Your task to perform on an android device: change the upload size in google photos Image 0: 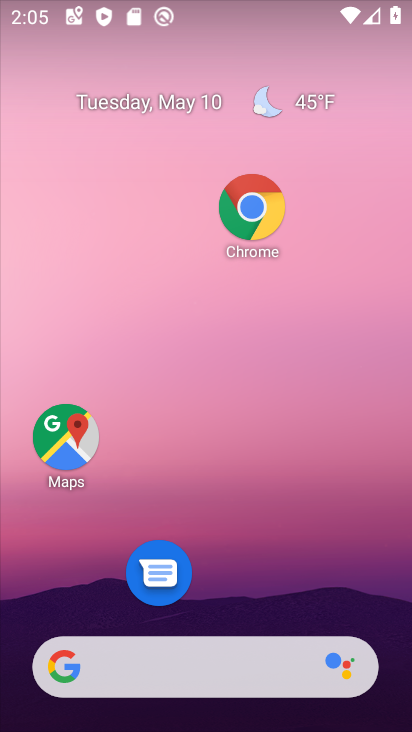
Step 0: drag from (260, 478) to (271, 13)
Your task to perform on an android device: change the upload size in google photos Image 1: 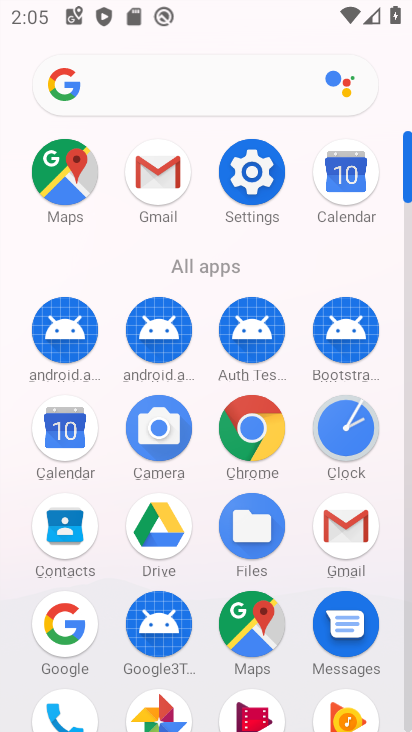
Step 1: drag from (207, 532) to (233, 217)
Your task to perform on an android device: change the upload size in google photos Image 2: 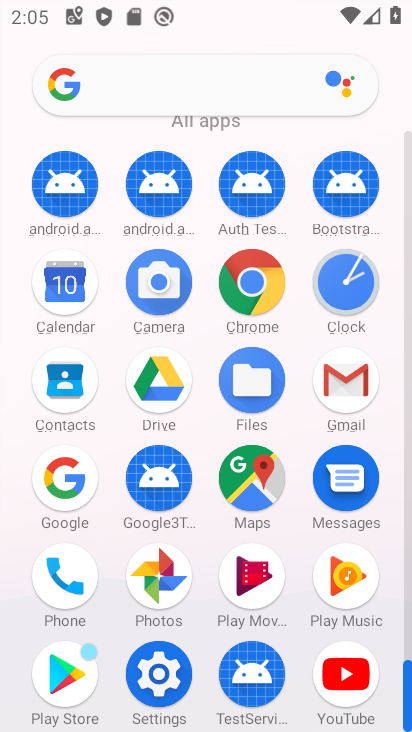
Step 2: click (158, 578)
Your task to perform on an android device: change the upload size in google photos Image 3: 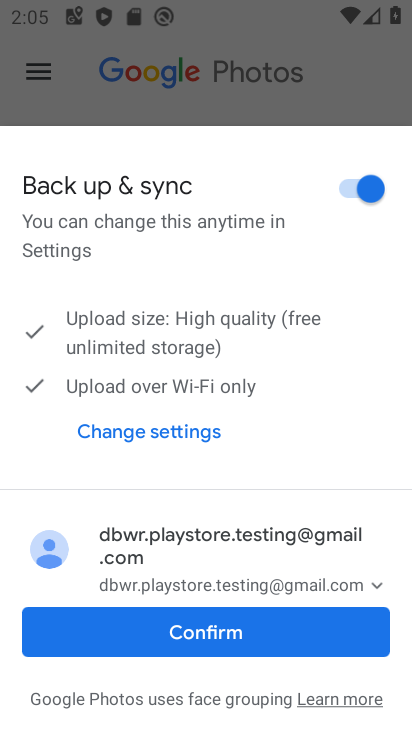
Step 3: click (277, 624)
Your task to perform on an android device: change the upload size in google photos Image 4: 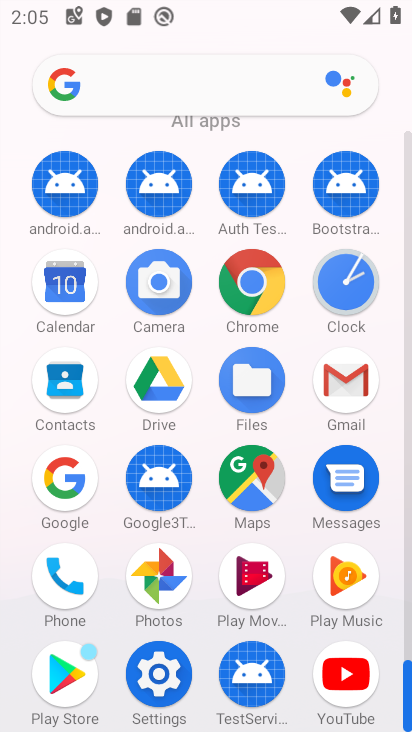
Step 4: click (270, 634)
Your task to perform on an android device: change the upload size in google photos Image 5: 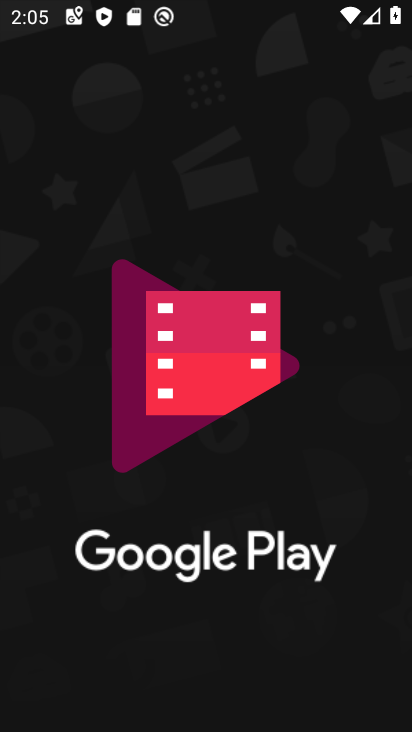
Step 5: press home button
Your task to perform on an android device: change the upload size in google photos Image 6: 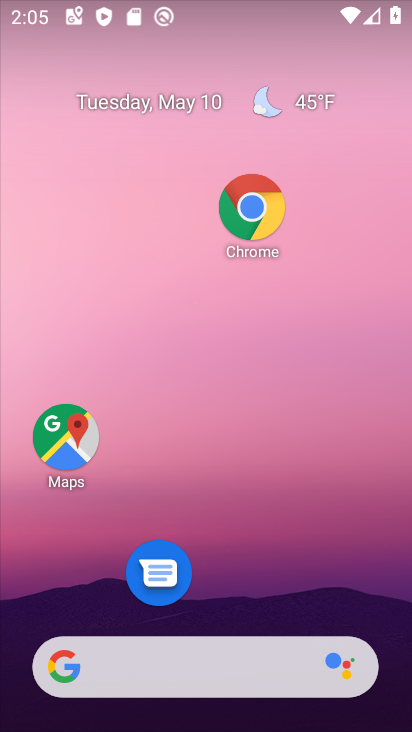
Step 6: drag from (268, 572) to (371, 40)
Your task to perform on an android device: change the upload size in google photos Image 7: 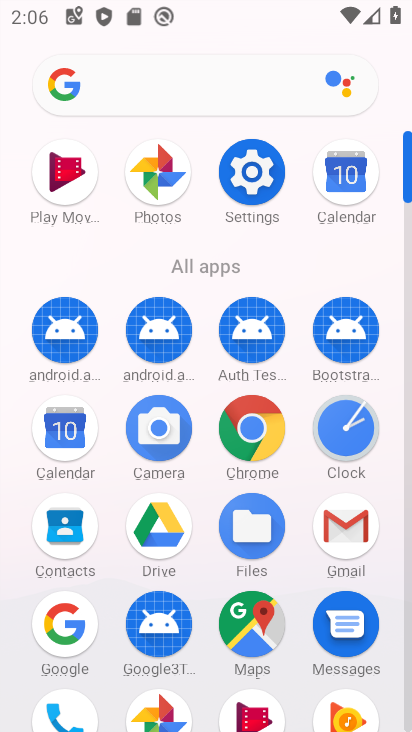
Step 7: drag from (216, 647) to (254, 242)
Your task to perform on an android device: change the upload size in google photos Image 8: 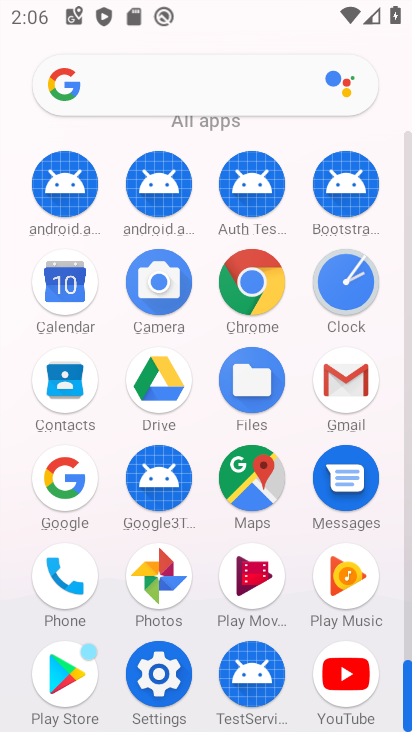
Step 8: click (147, 572)
Your task to perform on an android device: change the upload size in google photos Image 9: 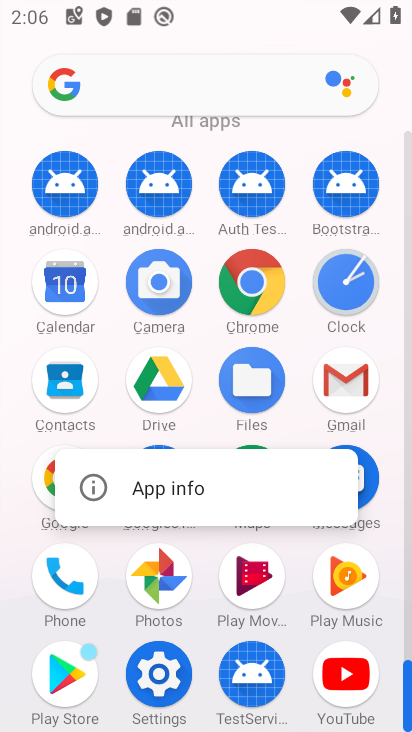
Step 9: click (181, 581)
Your task to perform on an android device: change the upload size in google photos Image 10: 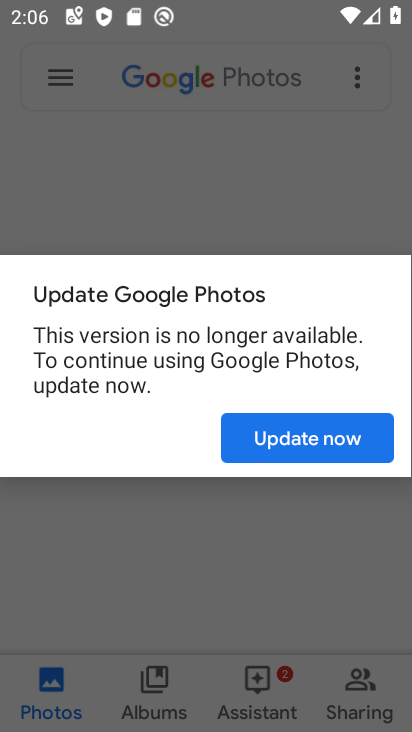
Step 10: click (286, 452)
Your task to perform on an android device: change the upload size in google photos Image 11: 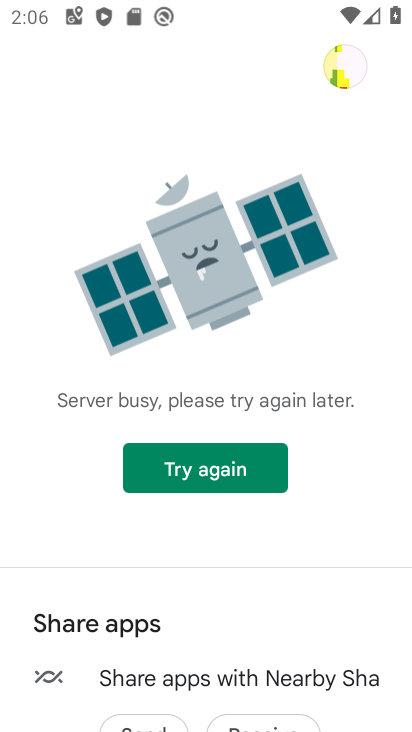
Step 11: press back button
Your task to perform on an android device: change the upload size in google photos Image 12: 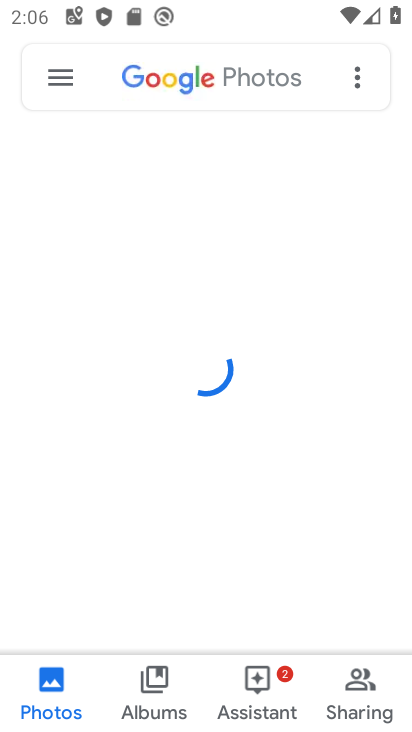
Step 12: click (60, 84)
Your task to perform on an android device: change the upload size in google photos Image 13: 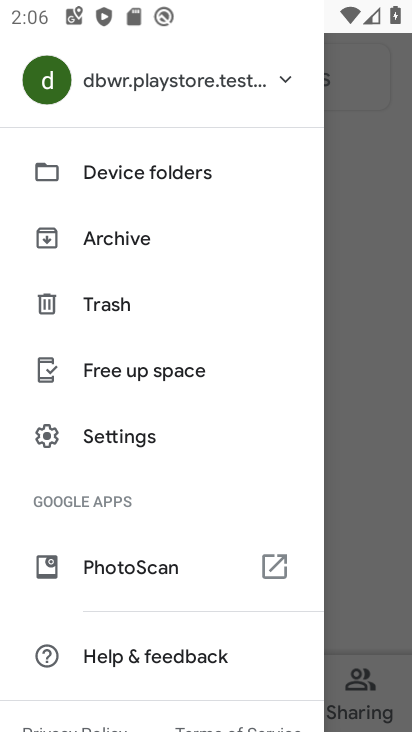
Step 13: click (124, 461)
Your task to perform on an android device: change the upload size in google photos Image 14: 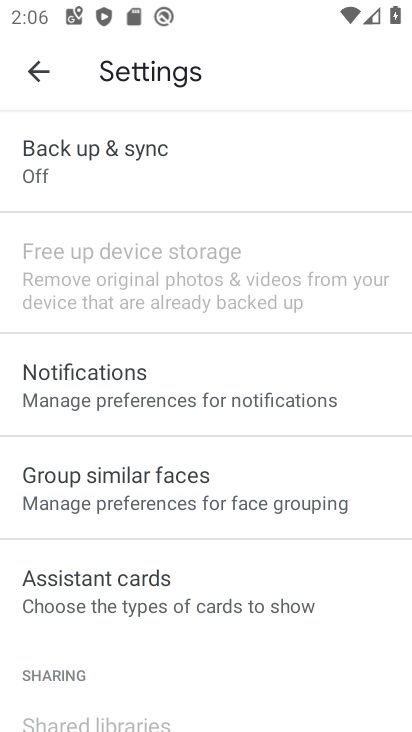
Step 14: drag from (170, 515) to (209, 285)
Your task to perform on an android device: change the upload size in google photos Image 15: 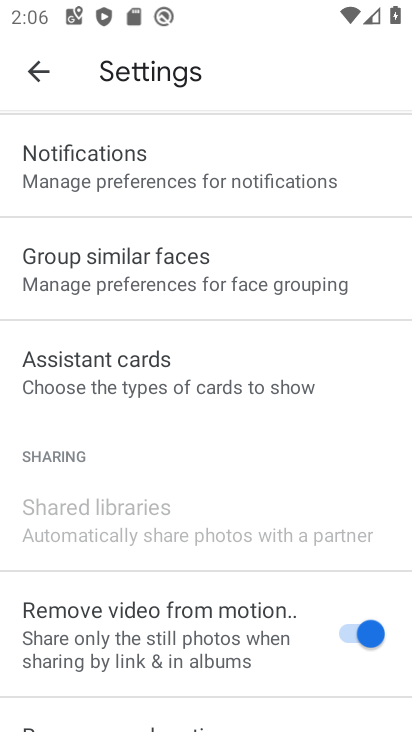
Step 15: drag from (102, 275) to (164, 711)
Your task to perform on an android device: change the upload size in google photos Image 16: 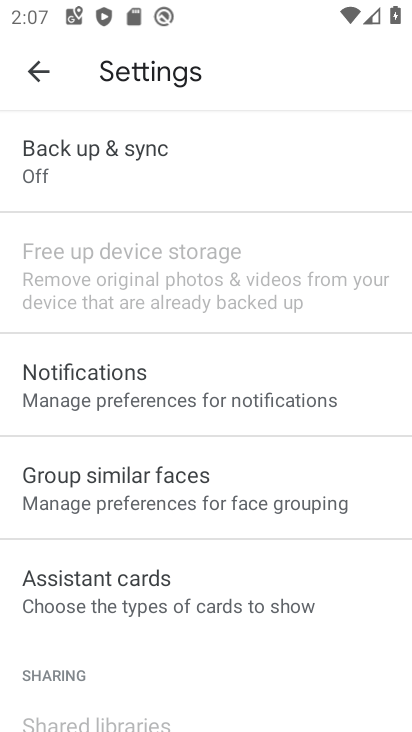
Step 16: click (136, 176)
Your task to perform on an android device: change the upload size in google photos Image 17: 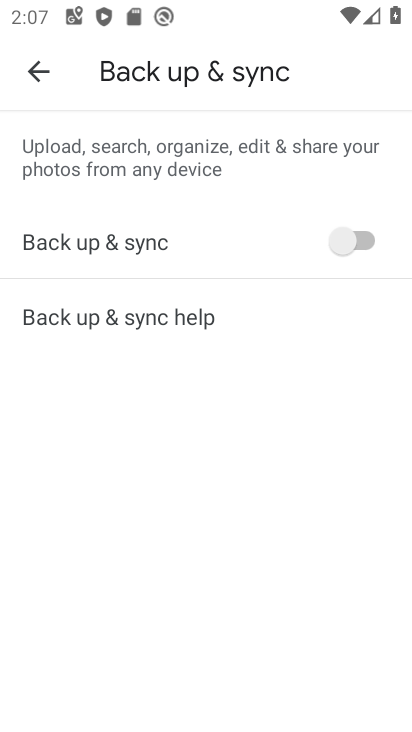
Step 17: click (340, 233)
Your task to perform on an android device: change the upload size in google photos Image 18: 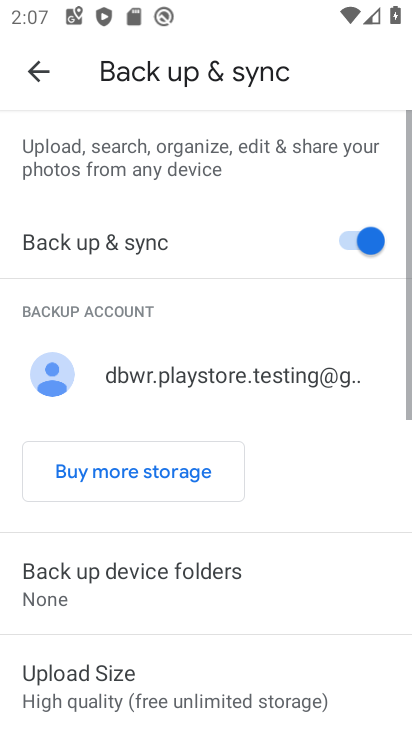
Step 18: drag from (175, 623) to (202, 432)
Your task to perform on an android device: change the upload size in google photos Image 19: 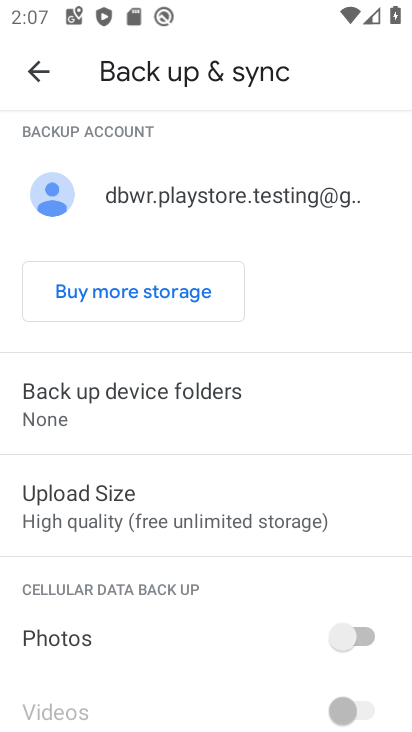
Step 19: click (95, 528)
Your task to perform on an android device: change the upload size in google photos Image 20: 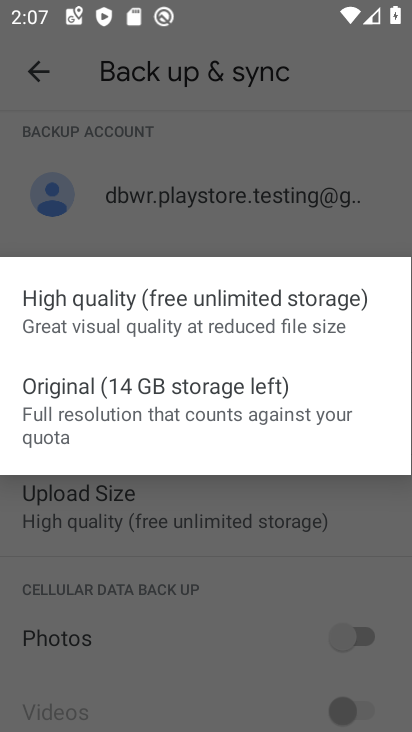
Step 20: click (125, 434)
Your task to perform on an android device: change the upload size in google photos Image 21: 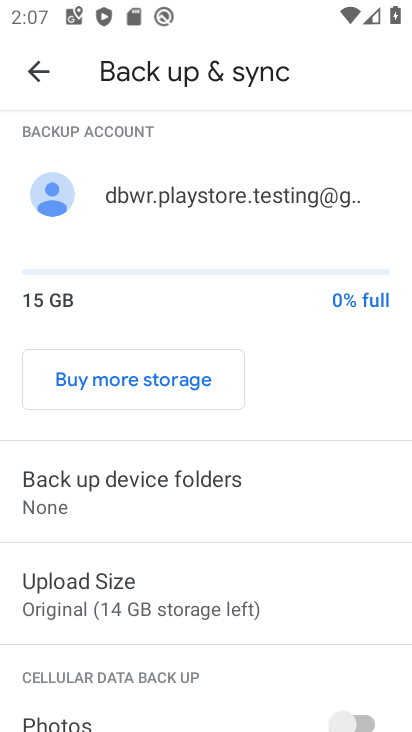
Step 21: task complete